Your task to perform on an android device: Open accessibility settings Image 0: 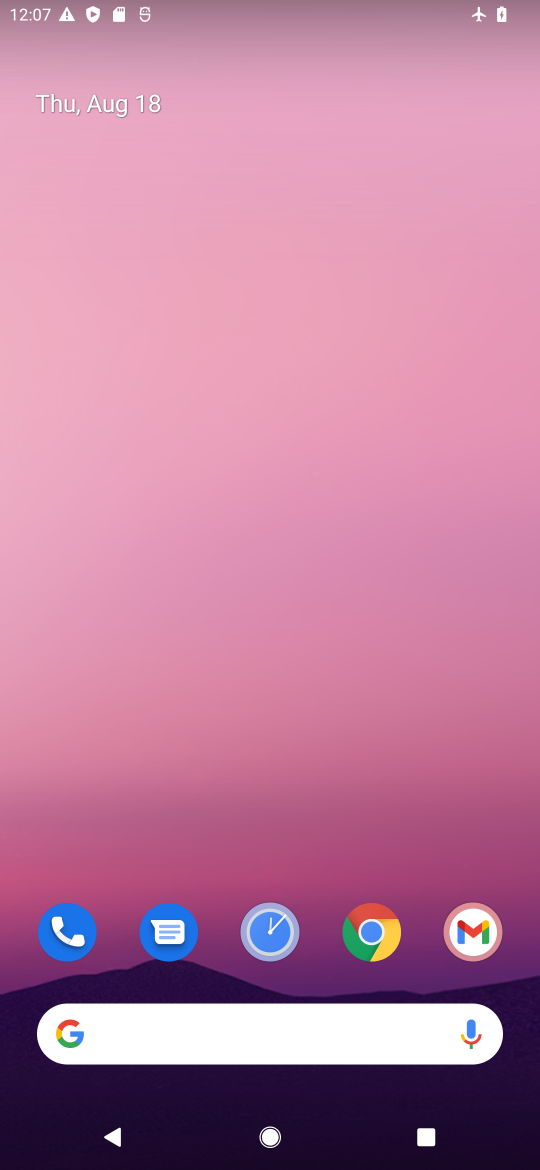
Step 0: drag from (307, 976) to (139, 130)
Your task to perform on an android device: Open accessibility settings Image 1: 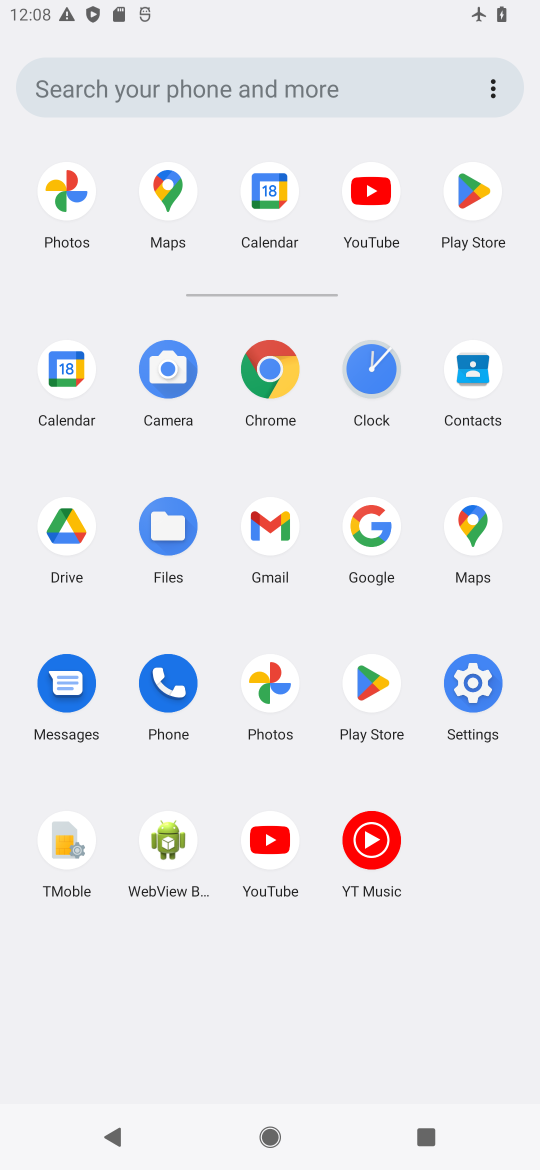
Step 1: click (470, 686)
Your task to perform on an android device: Open accessibility settings Image 2: 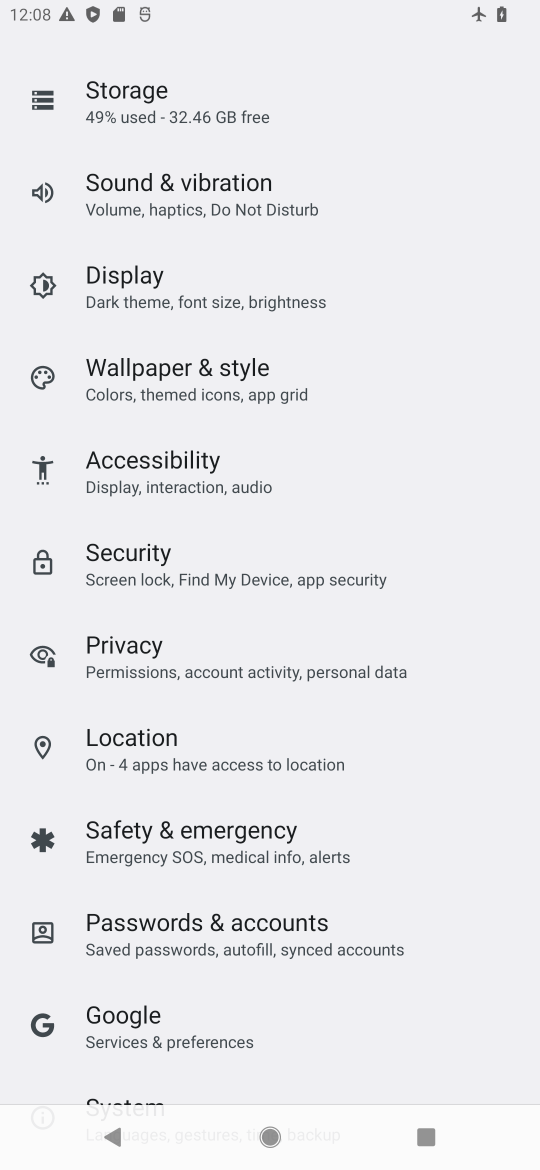
Step 2: click (152, 466)
Your task to perform on an android device: Open accessibility settings Image 3: 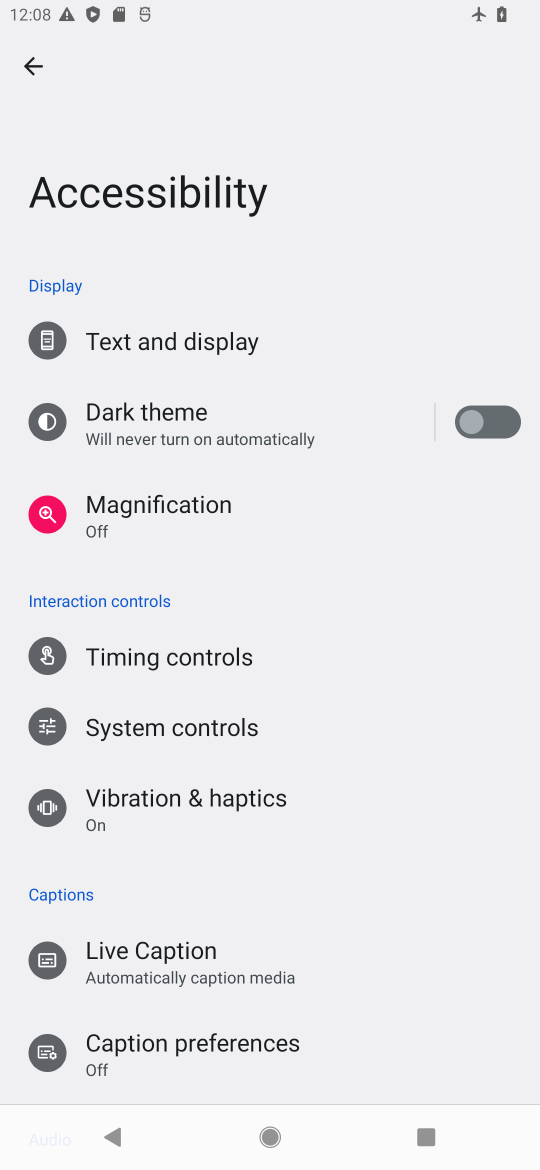
Step 3: task complete